Your task to perform on an android device: open the mobile data screen to see how much data has been used Image 0: 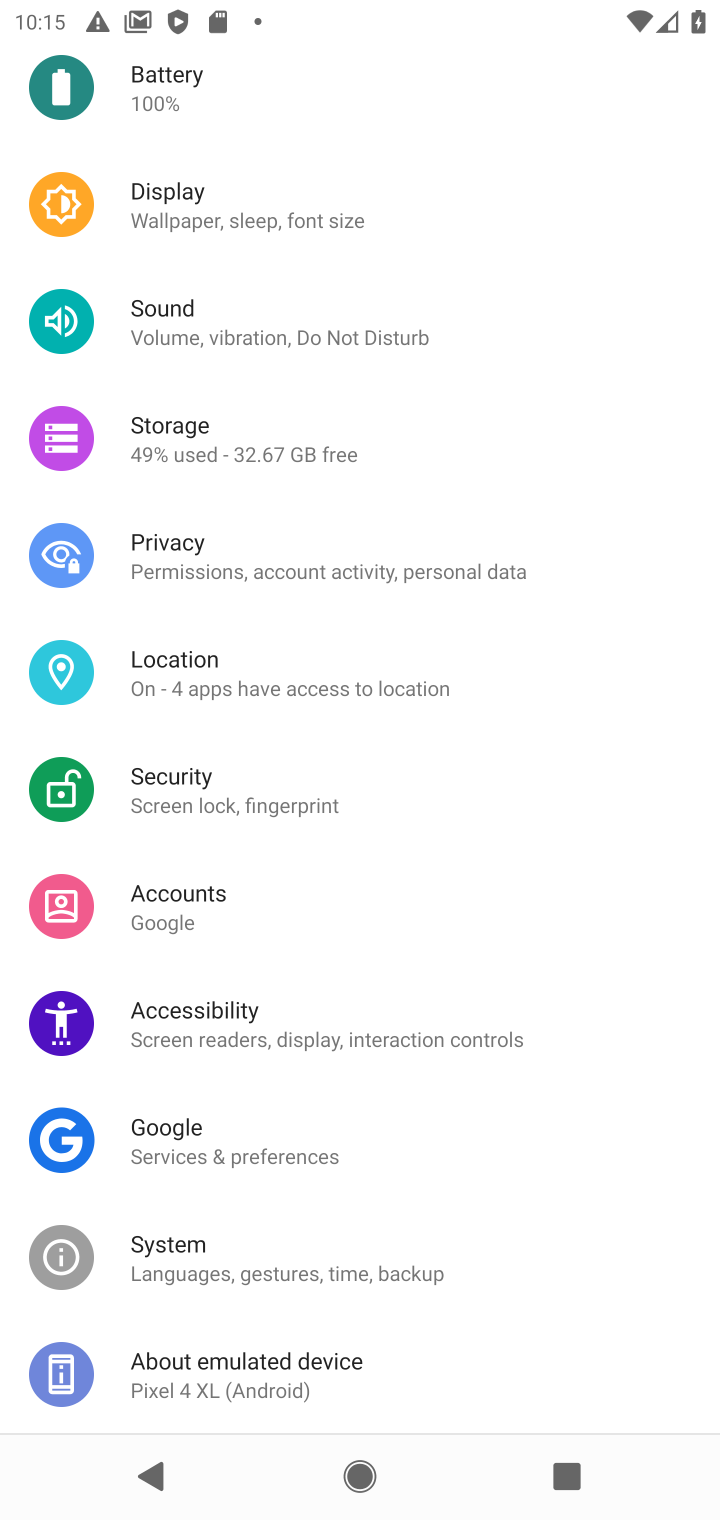
Step 0: press home button
Your task to perform on an android device: open the mobile data screen to see how much data has been used Image 1: 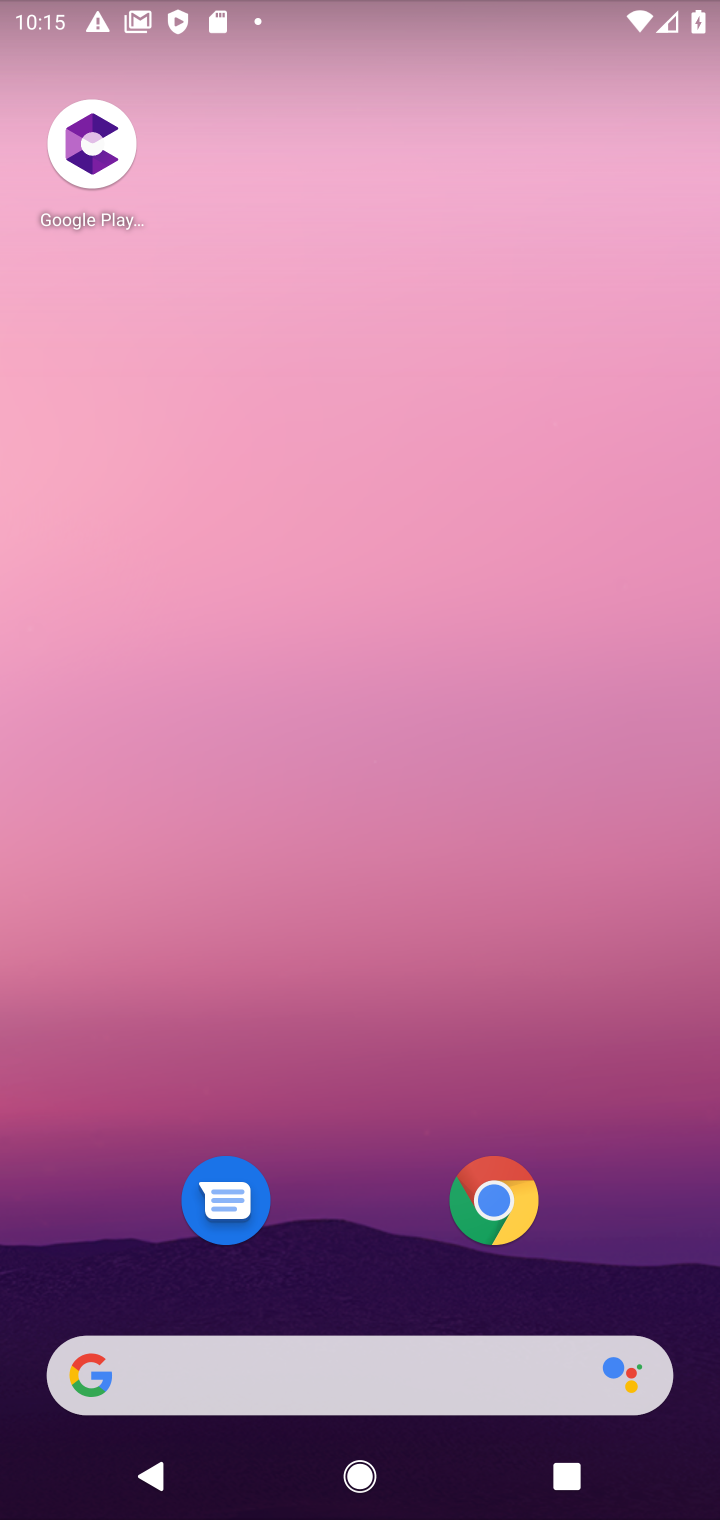
Step 1: drag from (600, 944) to (533, 244)
Your task to perform on an android device: open the mobile data screen to see how much data has been used Image 2: 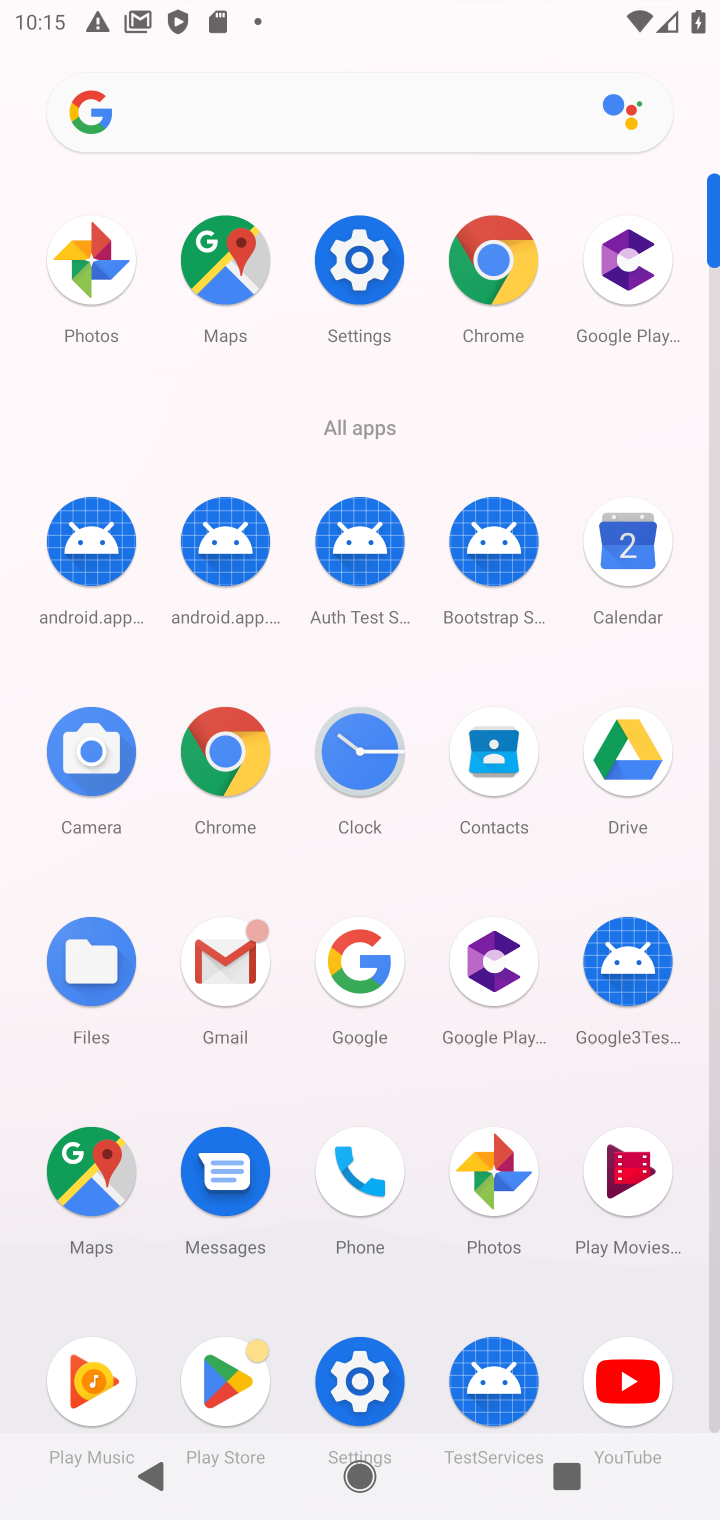
Step 2: click (356, 1376)
Your task to perform on an android device: open the mobile data screen to see how much data has been used Image 3: 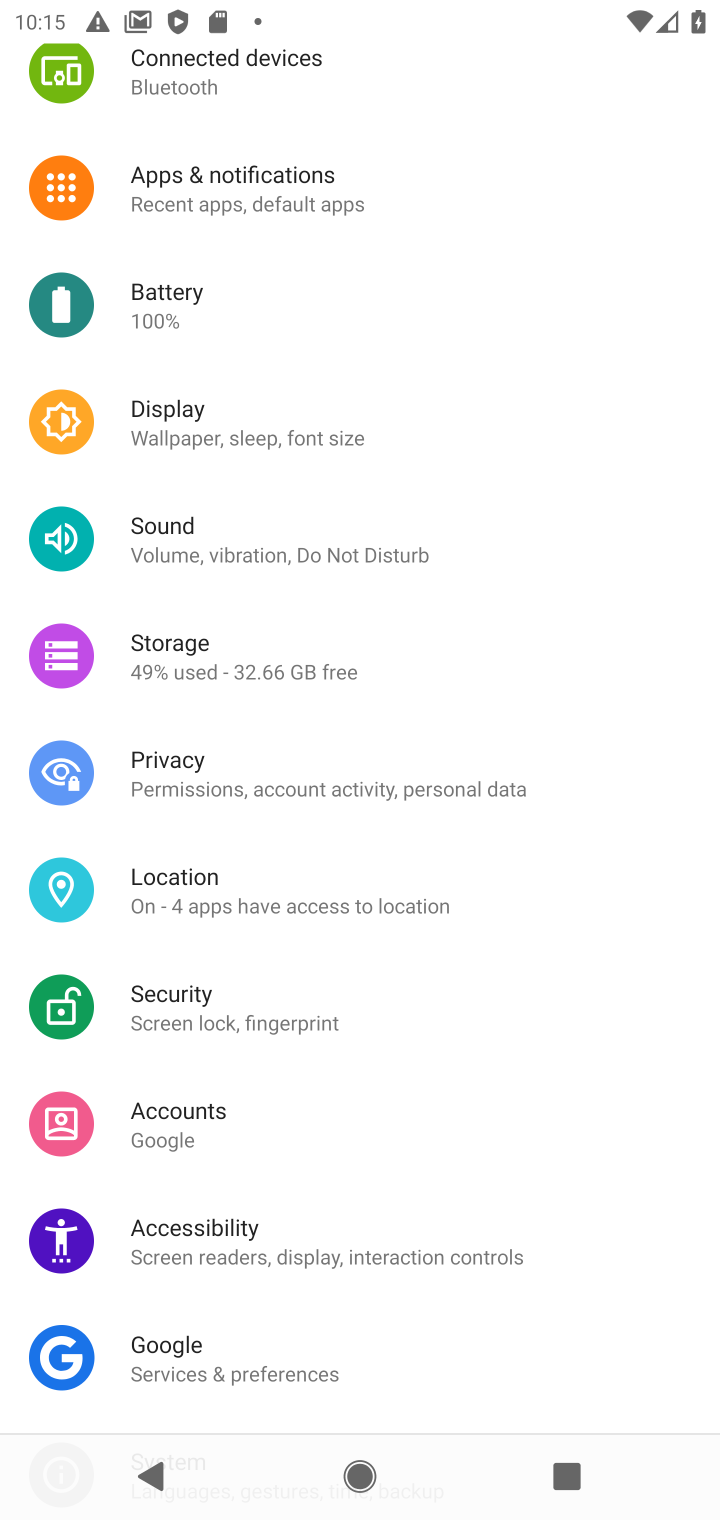
Step 3: drag from (555, 379) to (527, 944)
Your task to perform on an android device: open the mobile data screen to see how much data has been used Image 4: 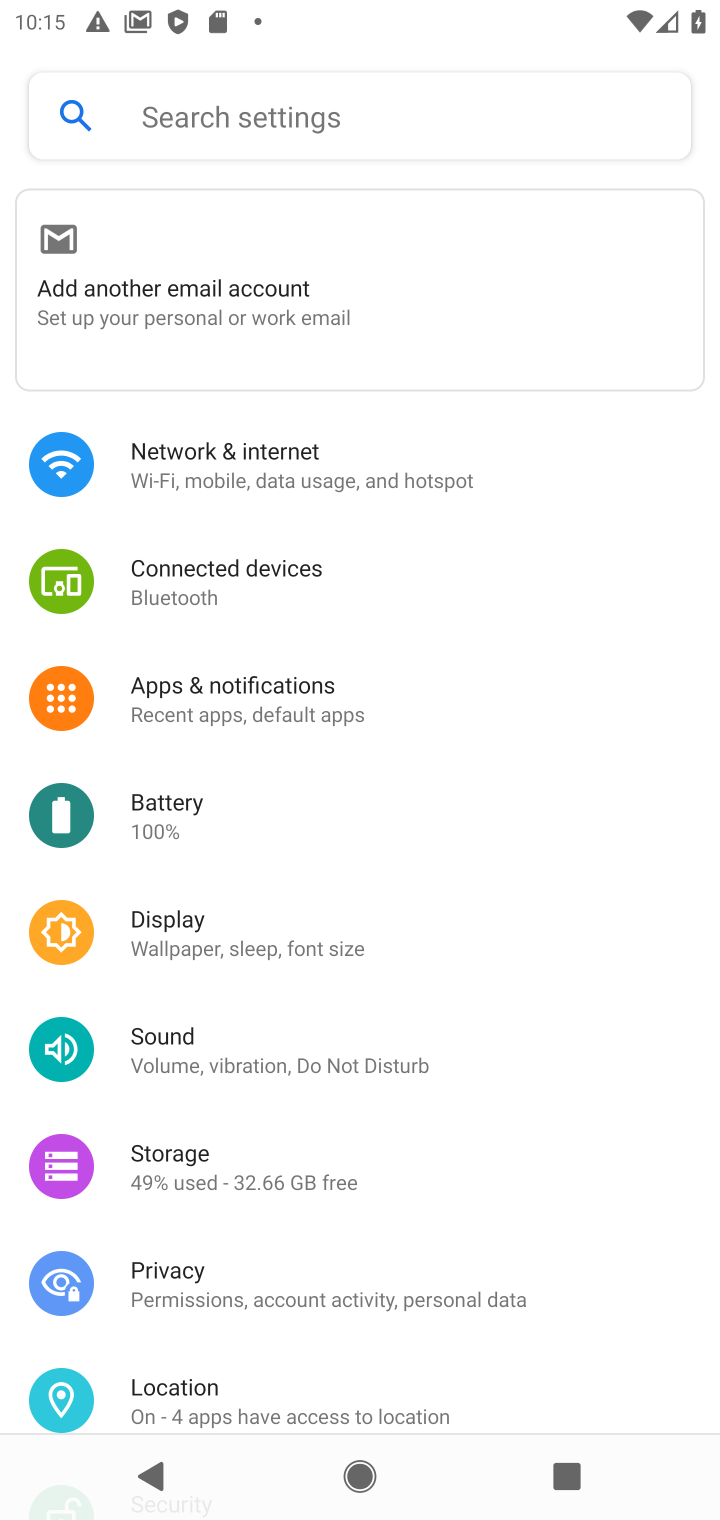
Step 4: click (192, 457)
Your task to perform on an android device: open the mobile data screen to see how much data has been used Image 5: 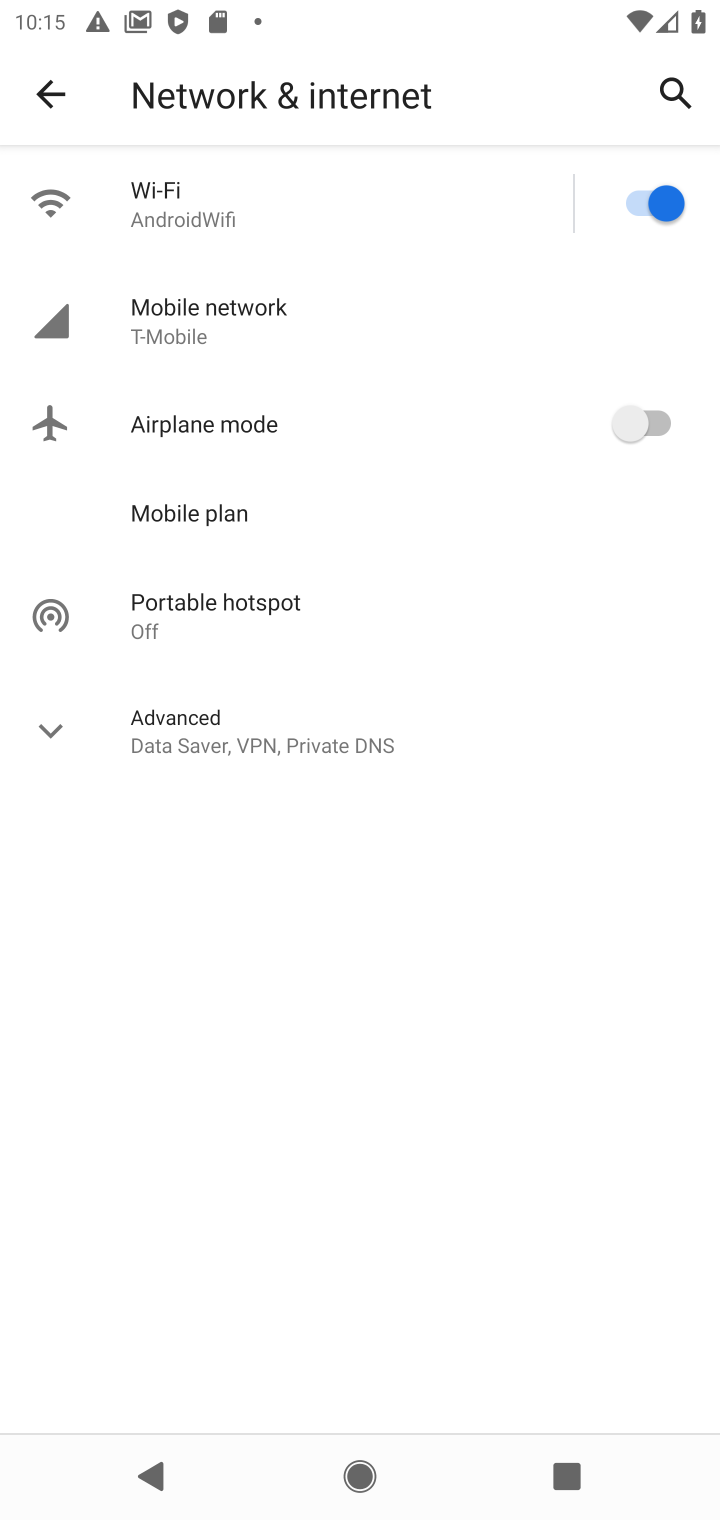
Step 5: click (182, 299)
Your task to perform on an android device: open the mobile data screen to see how much data has been used Image 6: 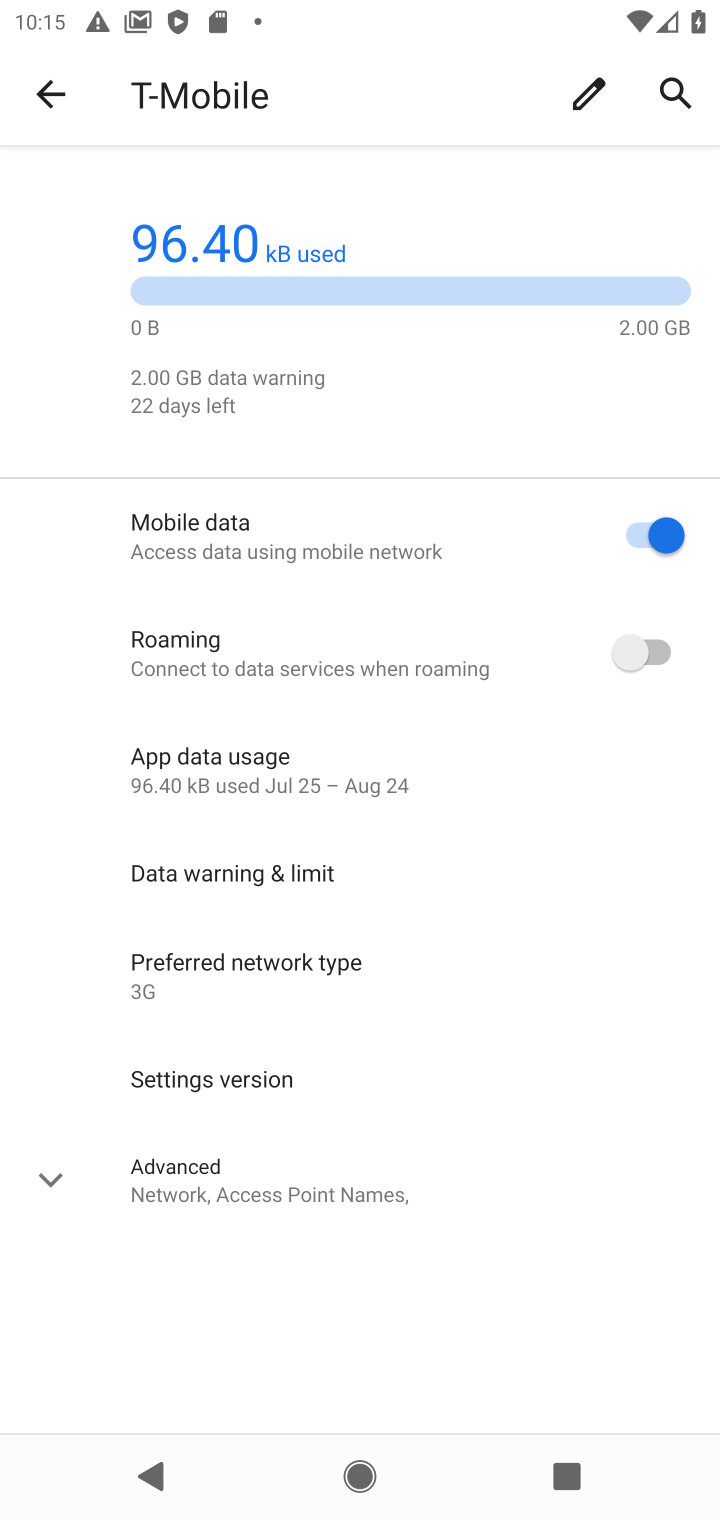
Step 6: task complete